Your task to perform on an android device: Search for the best running shoes on Nike. Image 0: 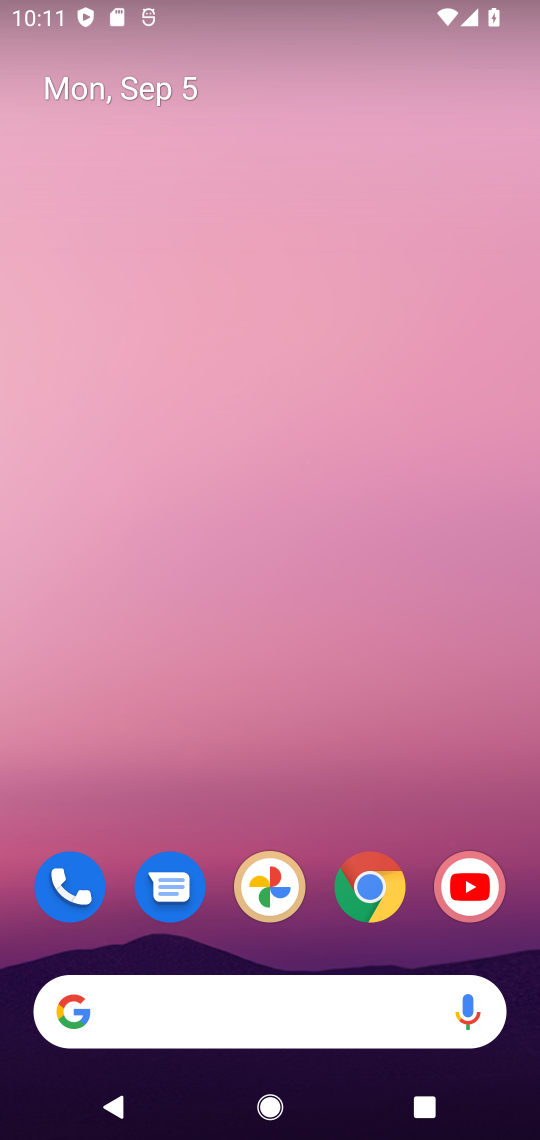
Step 0: click (382, 893)
Your task to perform on an android device: Search for the best running shoes on Nike. Image 1: 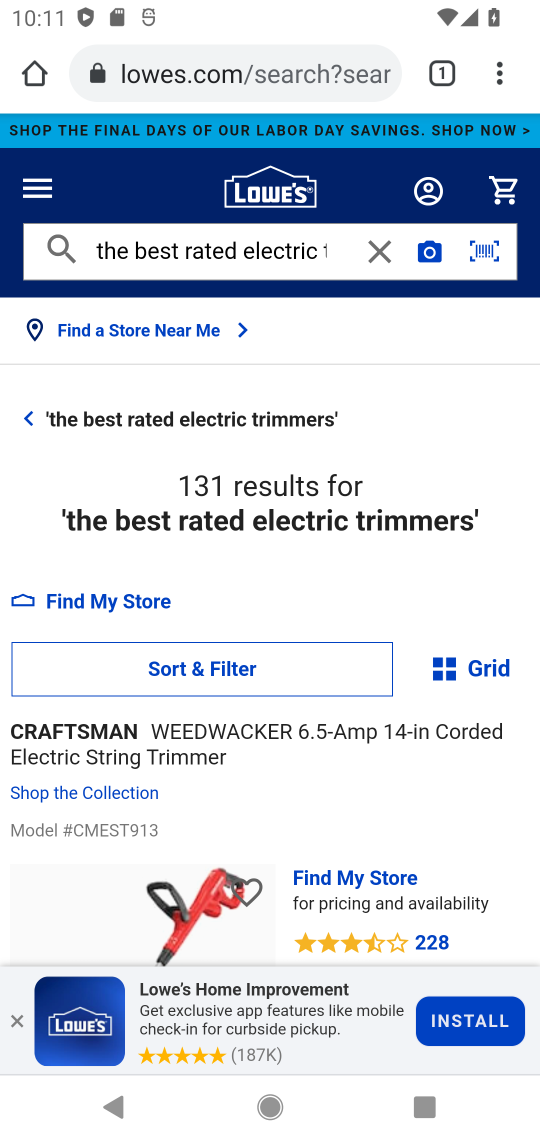
Step 1: click (226, 75)
Your task to perform on an android device: Search for the best running shoes on Nike. Image 2: 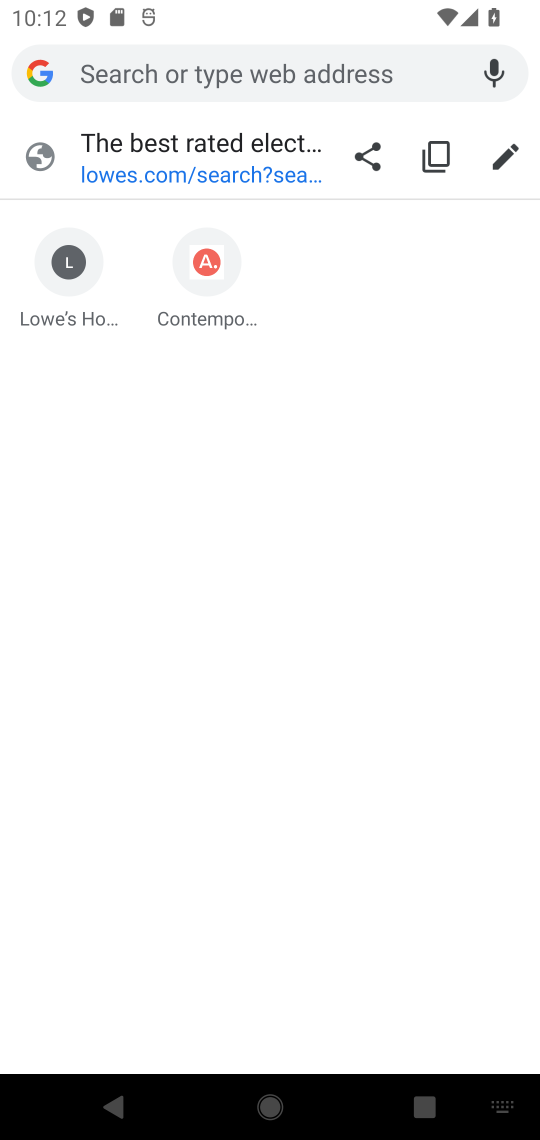
Step 2: type "Nike"
Your task to perform on an android device: Search for the best running shoes on Nike. Image 3: 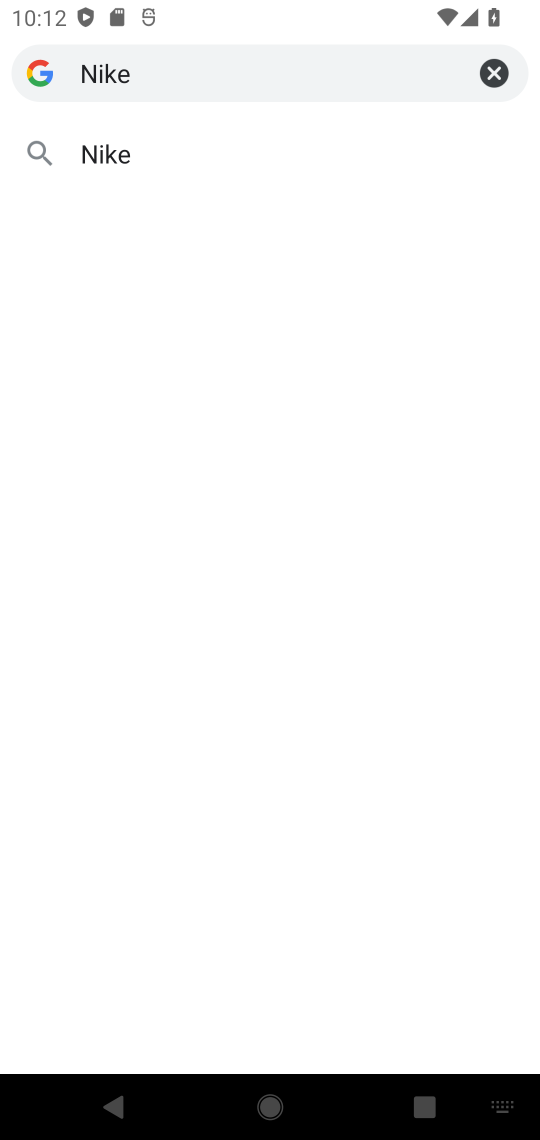
Step 3: click (107, 148)
Your task to perform on an android device: Search for the best running shoes on Nike. Image 4: 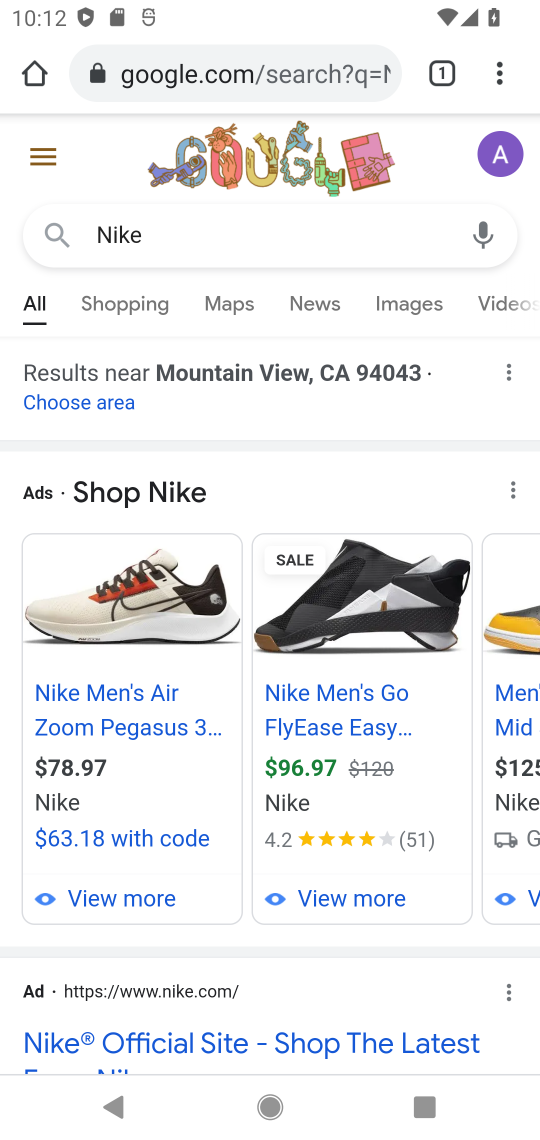
Step 4: click (127, 1017)
Your task to perform on an android device: Search for the best running shoes on Nike. Image 5: 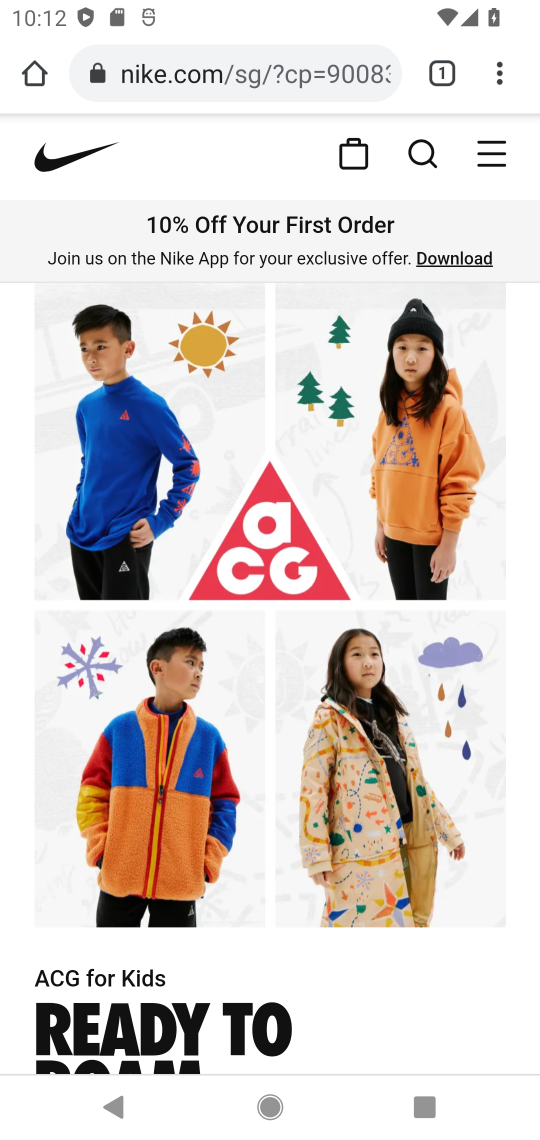
Step 5: click (416, 138)
Your task to perform on an android device: Search for the best running shoes on Nike. Image 6: 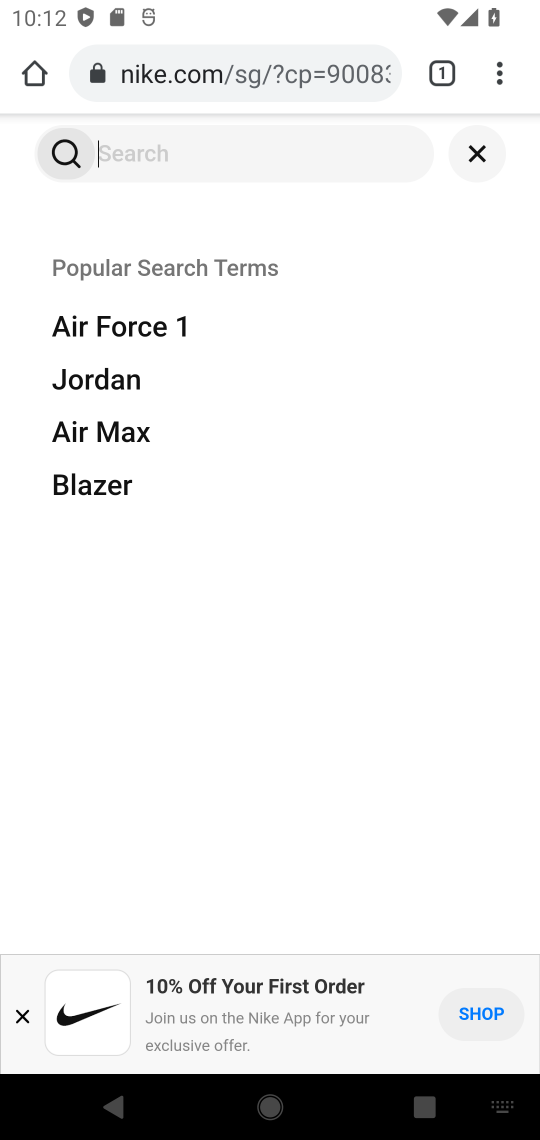
Step 6: drag from (522, 1136) to (416, 1131)
Your task to perform on an android device: Search for the best running shoes on Nike. Image 7: 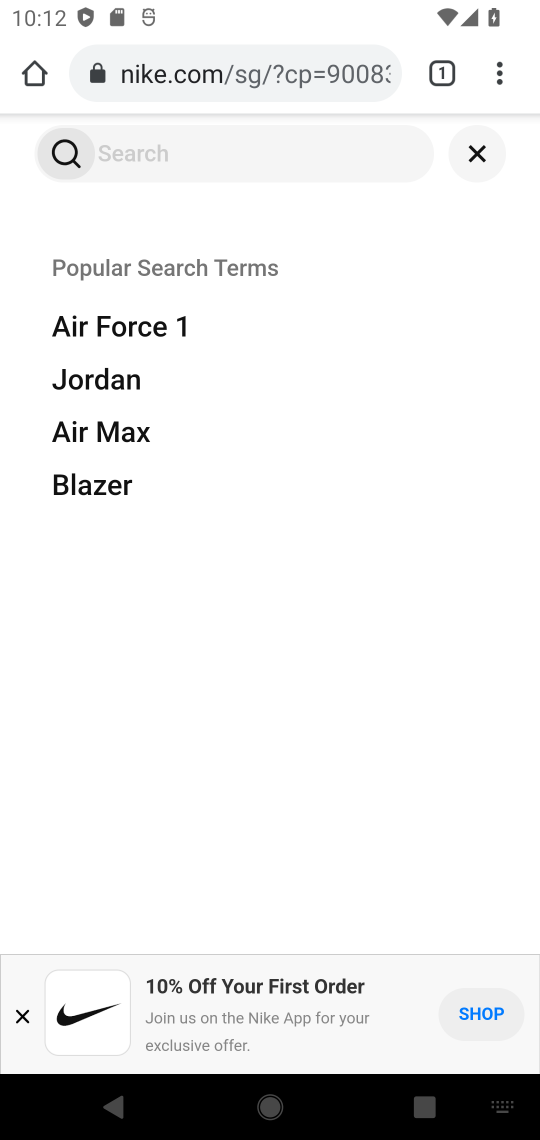
Step 7: type "the best running shoes"
Your task to perform on an android device: Search for the best running shoes on Nike. Image 8: 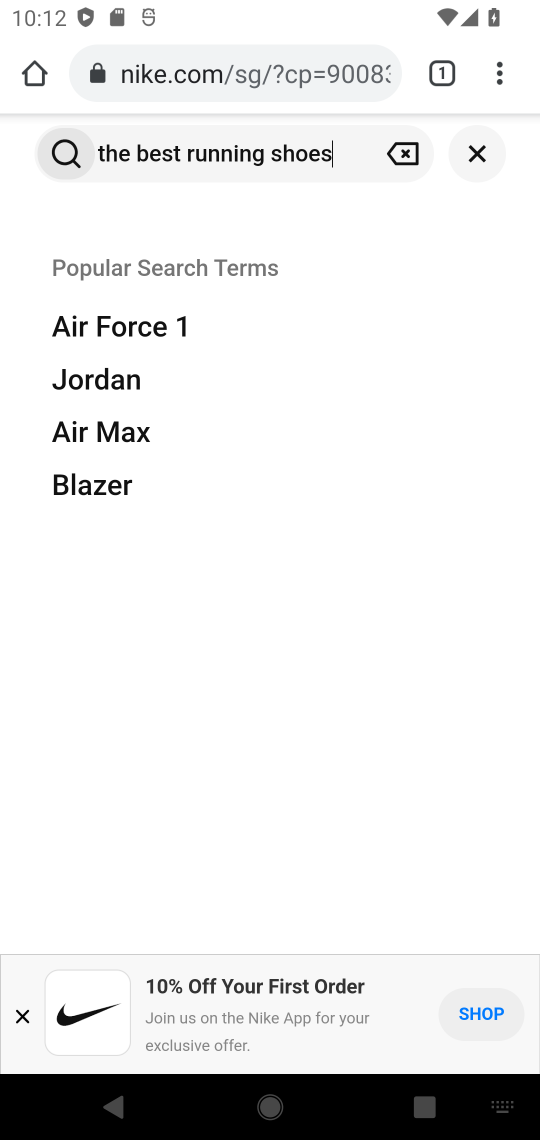
Step 8: click (69, 157)
Your task to perform on an android device: Search for the best running shoes on Nike. Image 9: 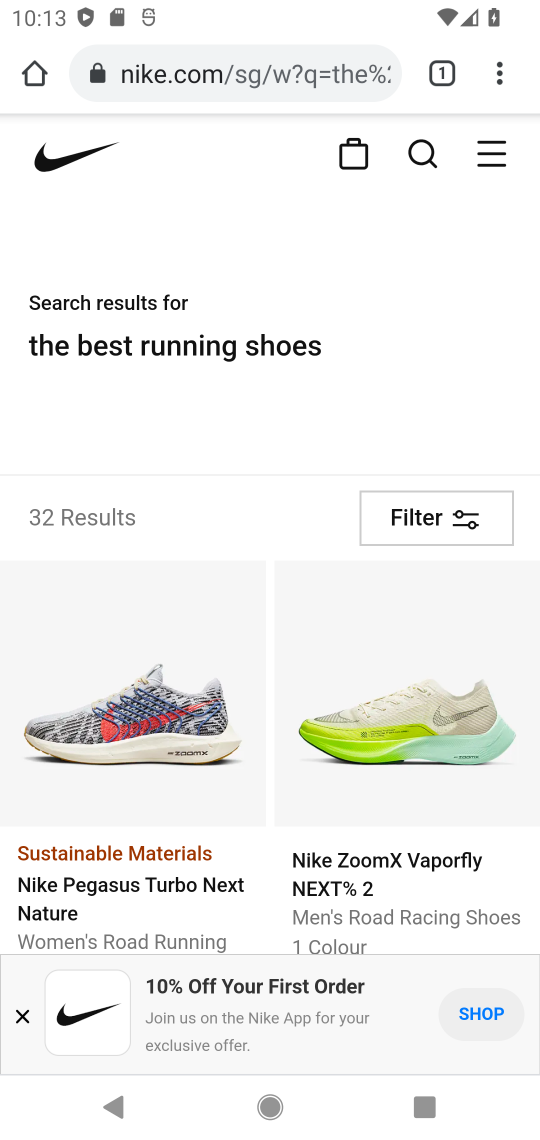
Step 9: task complete